Your task to perform on an android device: Go to Yahoo.com Image 0: 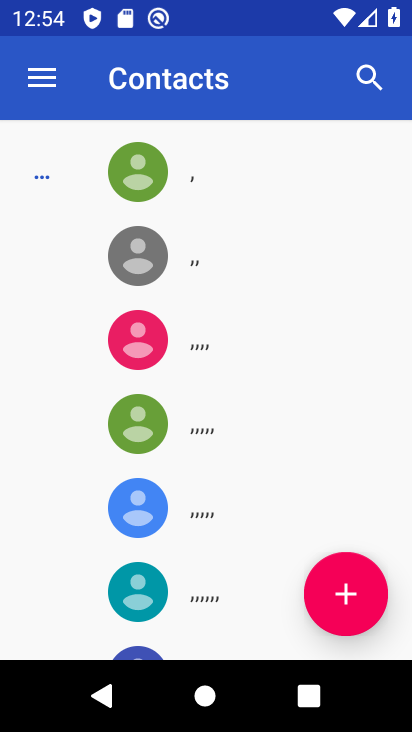
Step 0: press home button
Your task to perform on an android device: Go to Yahoo.com Image 1: 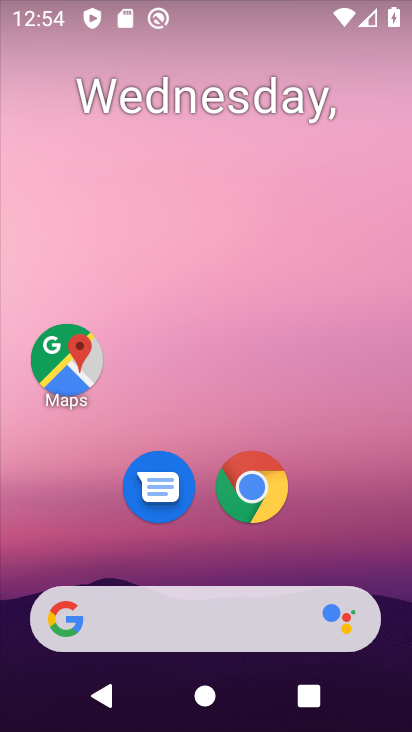
Step 1: click (263, 503)
Your task to perform on an android device: Go to Yahoo.com Image 2: 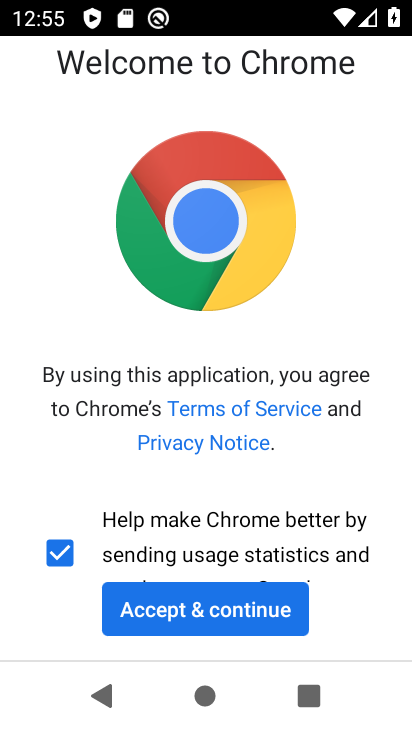
Step 2: click (208, 608)
Your task to perform on an android device: Go to Yahoo.com Image 3: 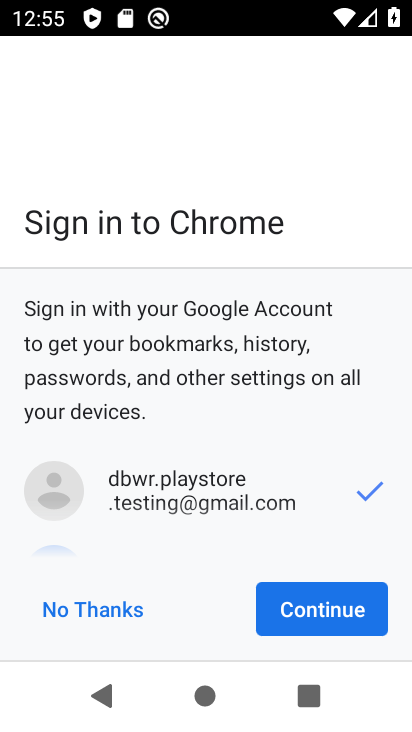
Step 3: click (314, 596)
Your task to perform on an android device: Go to Yahoo.com Image 4: 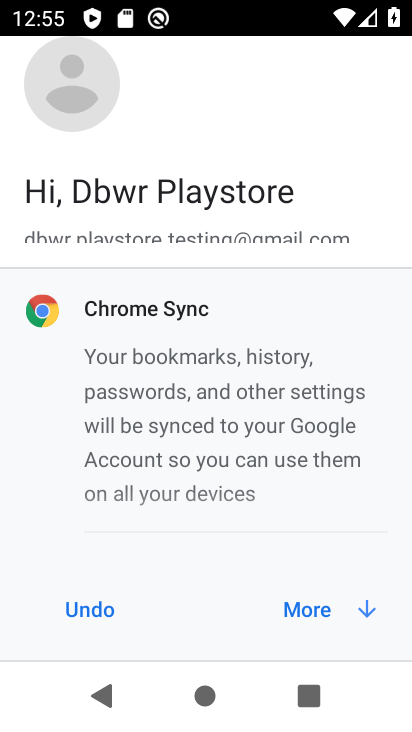
Step 4: click (311, 608)
Your task to perform on an android device: Go to Yahoo.com Image 5: 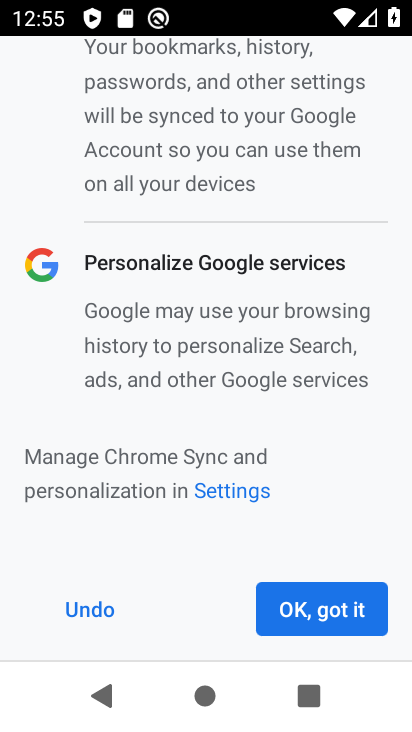
Step 5: click (311, 608)
Your task to perform on an android device: Go to Yahoo.com Image 6: 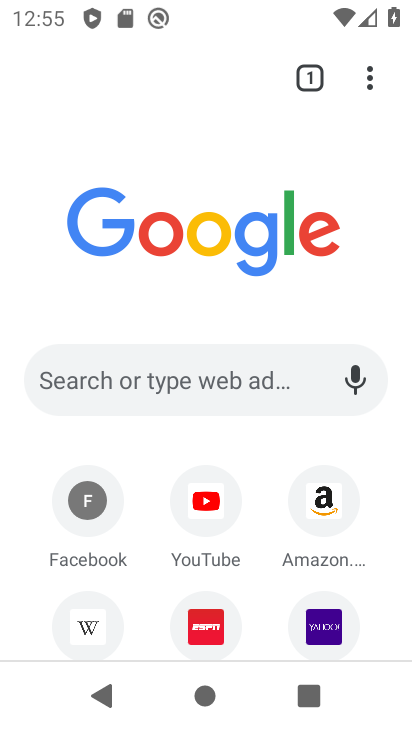
Step 6: drag from (298, 595) to (307, 419)
Your task to perform on an android device: Go to Yahoo.com Image 7: 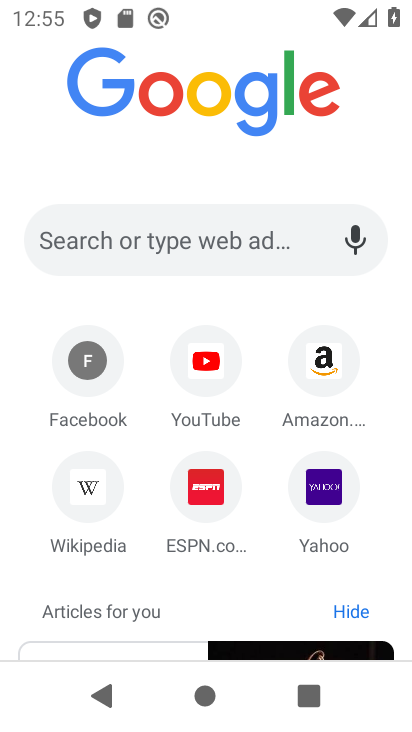
Step 7: click (326, 494)
Your task to perform on an android device: Go to Yahoo.com Image 8: 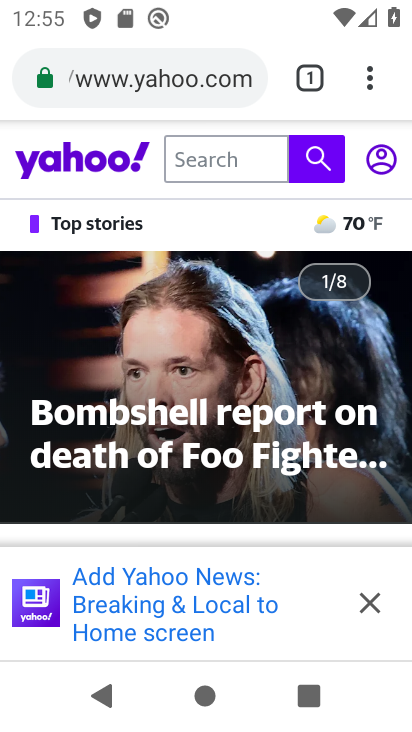
Step 8: task complete